Your task to perform on an android device: When is my next meeting? Image 0: 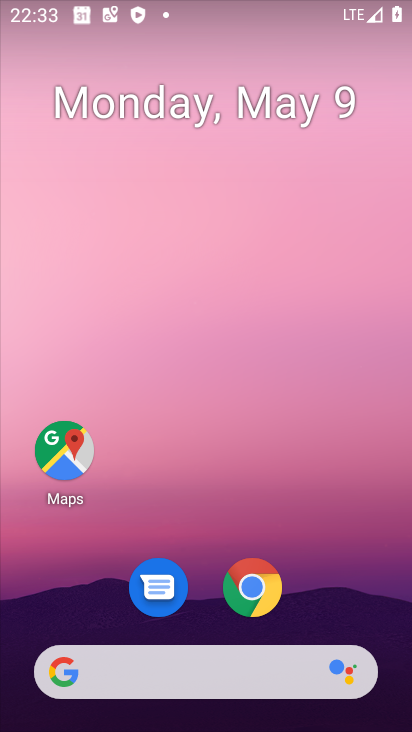
Step 0: drag from (201, 634) to (218, 83)
Your task to perform on an android device: When is my next meeting? Image 1: 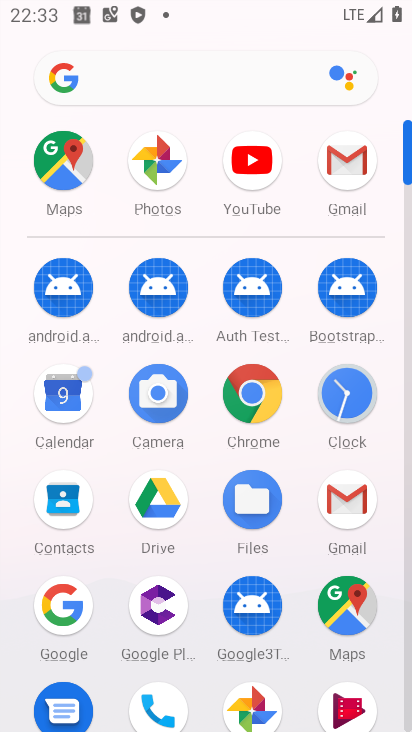
Step 1: press home button
Your task to perform on an android device: When is my next meeting? Image 2: 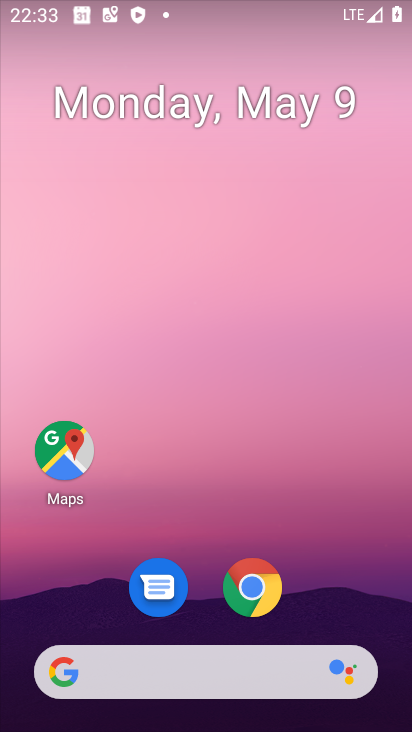
Step 2: click (195, 118)
Your task to perform on an android device: When is my next meeting? Image 3: 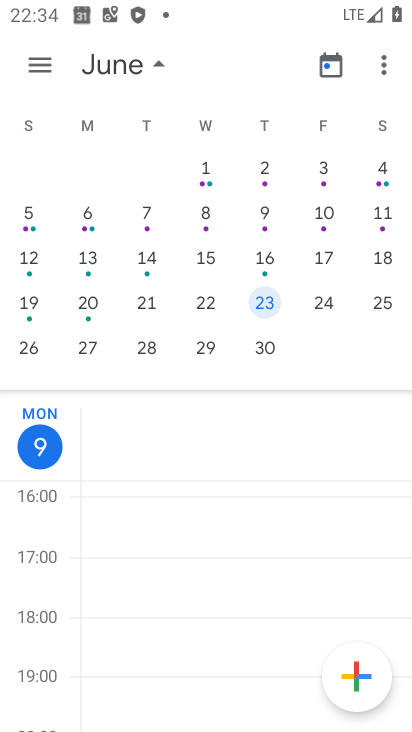
Step 3: task complete